Your task to perform on an android device: turn off smart reply in the gmail app Image 0: 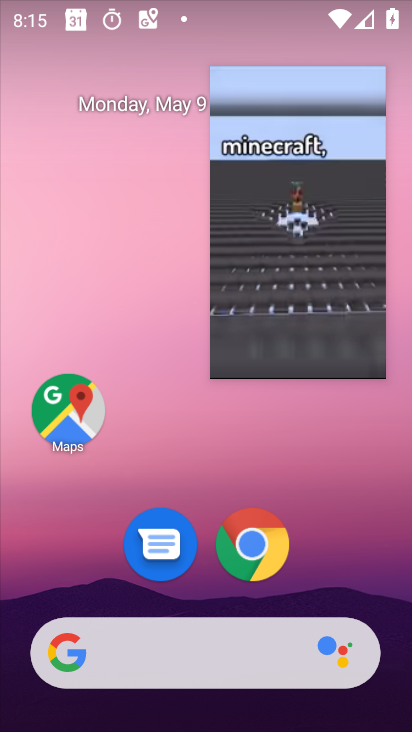
Step 0: press home button
Your task to perform on an android device: turn off smart reply in the gmail app Image 1: 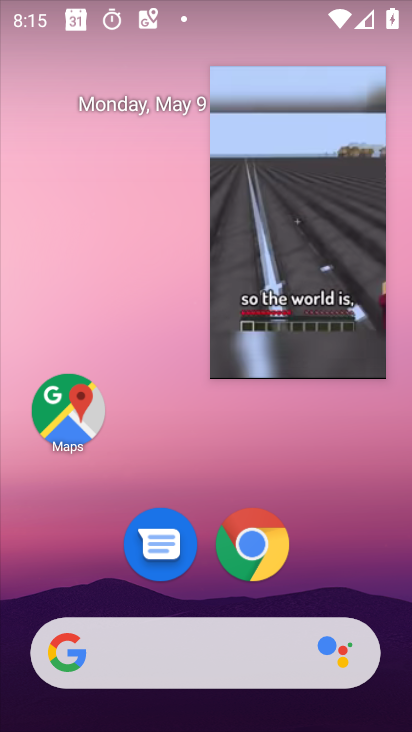
Step 1: click (340, 98)
Your task to perform on an android device: turn off smart reply in the gmail app Image 2: 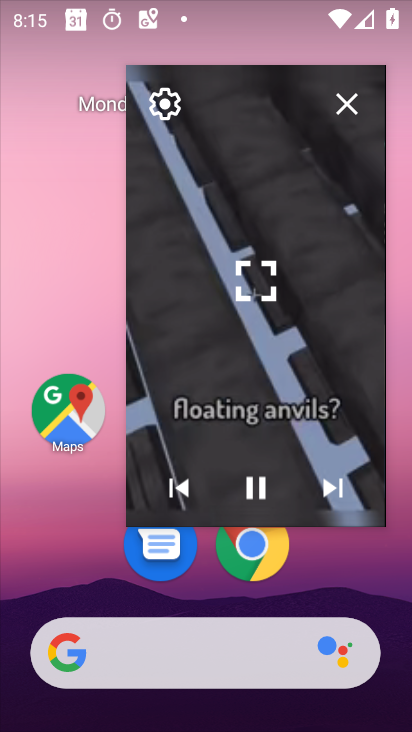
Step 2: click (346, 106)
Your task to perform on an android device: turn off smart reply in the gmail app Image 3: 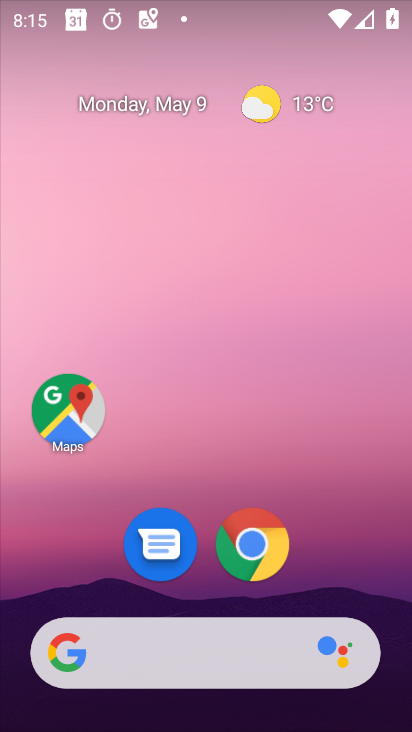
Step 3: drag from (380, 463) to (369, 119)
Your task to perform on an android device: turn off smart reply in the gmail app Image 4: 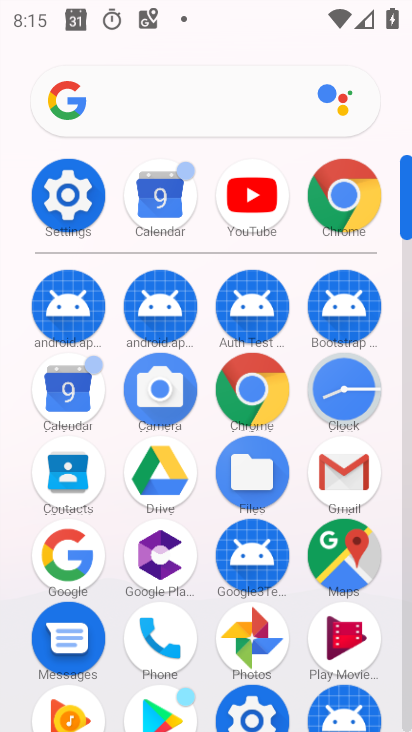
Step 4: click (345, 471)
Your task to perform on an android device: turn off smart reply in the gmail app Image 5: 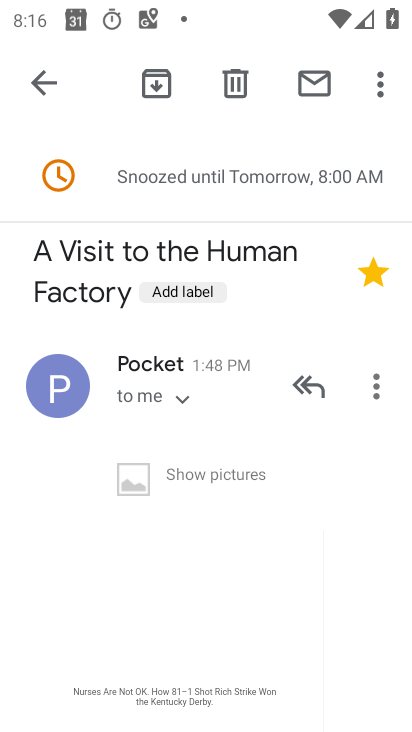
Step 5: click (30, 79)
Your task to perform on an android device: turn off smart reply in the gmail app Image 6: 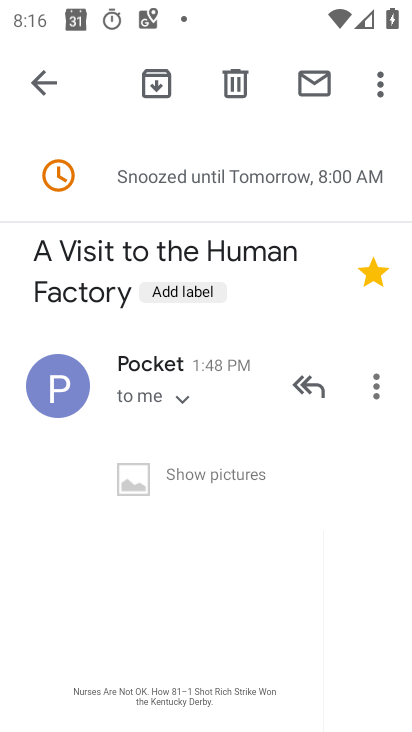
Step 6: click (51, 88)
Your task to perform on an android device: turn off smart reply in the gmail app Image 7: 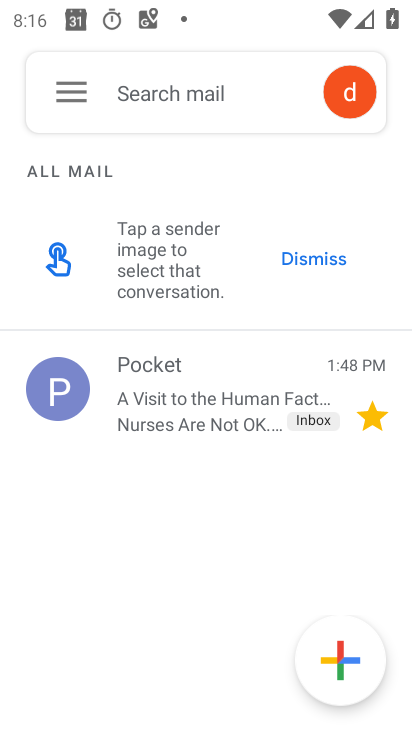
Step 7: click (77, 111)
Your task to perform on an android device: turn off smart reply in the gmail app Image 8: 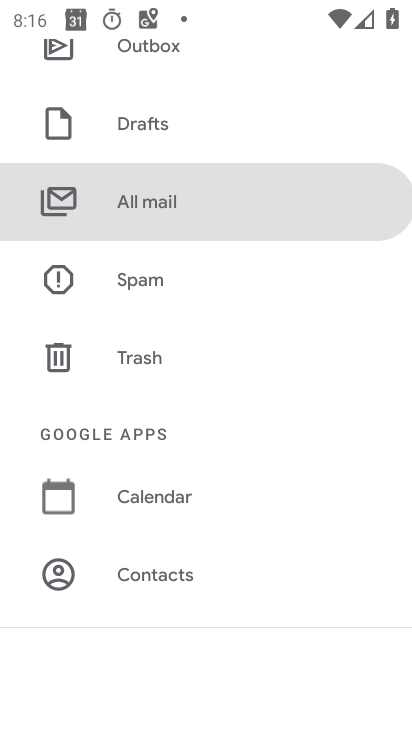
Step 8: drag from (125, 591) to (196, 195)
Your task to perform on an android device: turn off smart reply in the gmail app Image 9: 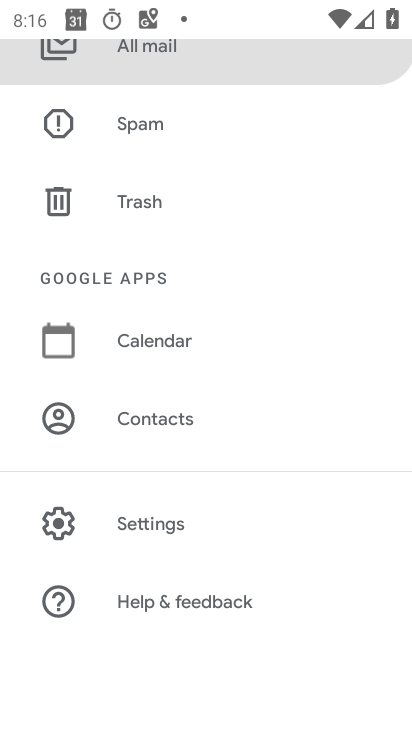
Step 9: click (139, 520)
Your task to perform on an android device: turn off smart reply in the gmail app Image 10: 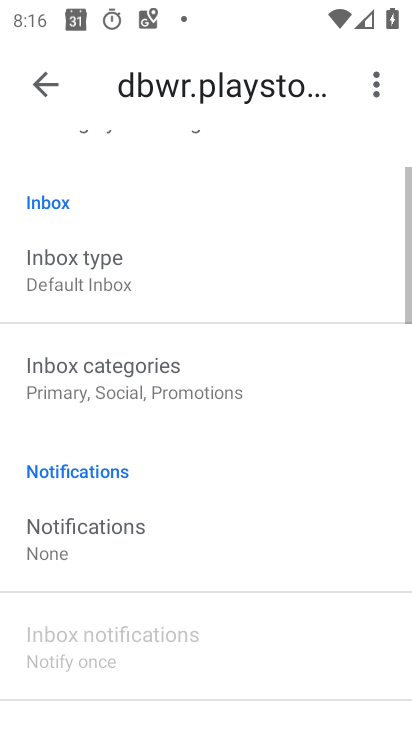
Step 10: drag from (188, 608) to (253, 162)
Your task to perform on an android device: turn off smart reply in the gmail app Image 11: 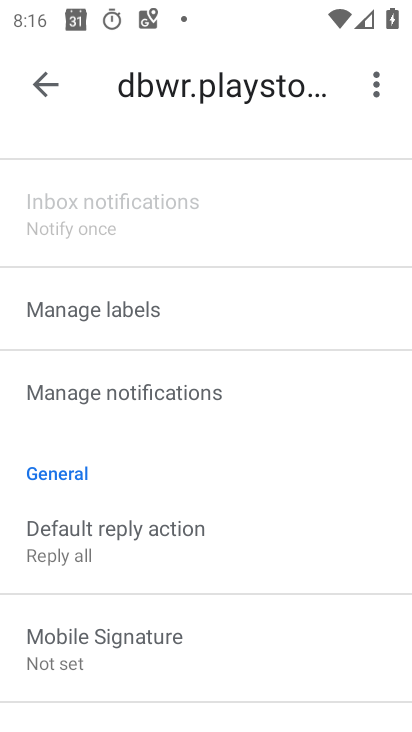
Step 11: drag from (249, 555) to (302, 175)
Your task to perform on an android device: turn off smart reply in the gmail app Image 12: 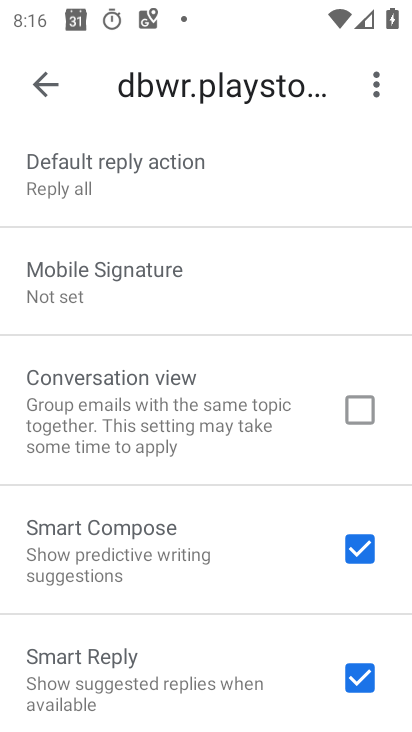
Step 12: drag from (201, 621) to (259, 299)
Your task to perform on an android device: turn off smart reply in the gmail app Image 13: 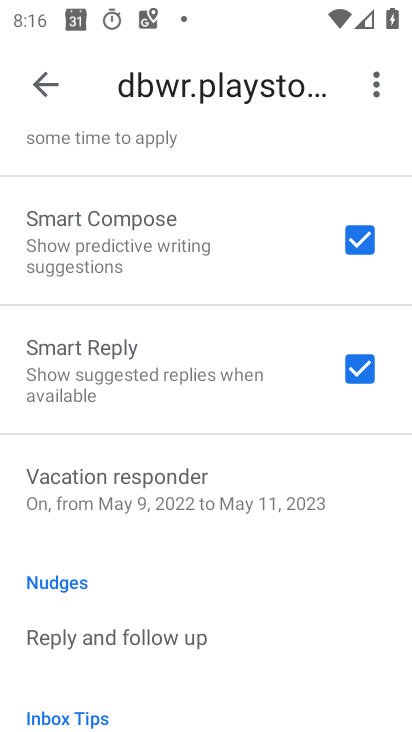
Step 13: click (363, 379)
Your task to perform on an android device: turn off smart reply in the gmail app Image 14: 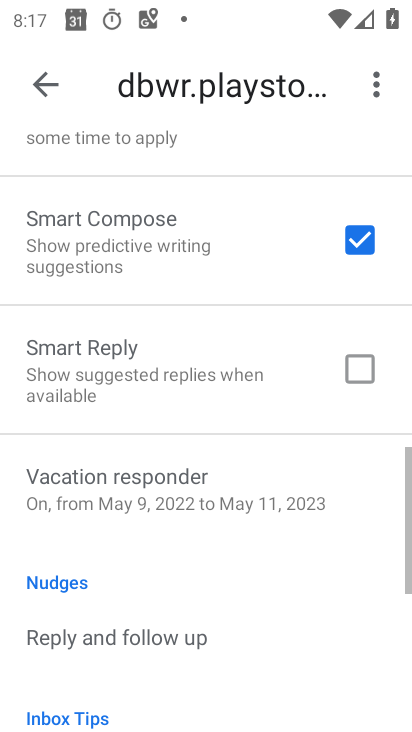
Step 14: task complete